Your task to perform on an android device: delete browsing data in the chrome app Image 0: 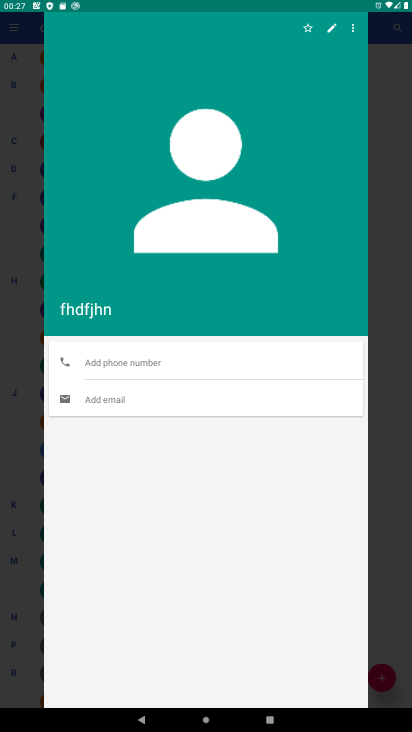
Step 0: press home button
Your task to perform on an android device: delete browsing data in the chrome app Image 1: 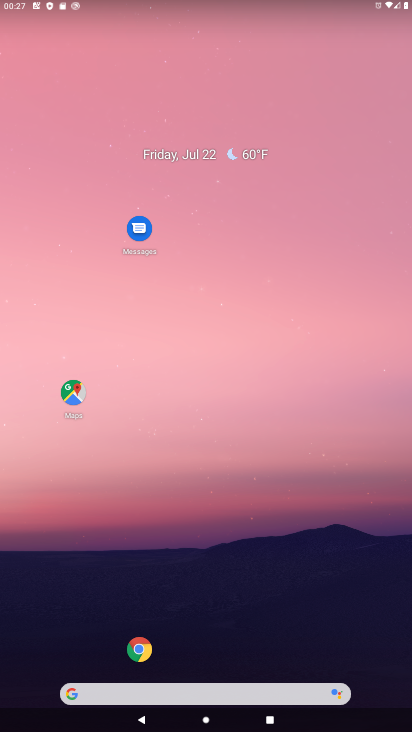
Step 1: click (148, 654)
Your task to perform on an android device: delete browsing data in the chrome app Image 2: 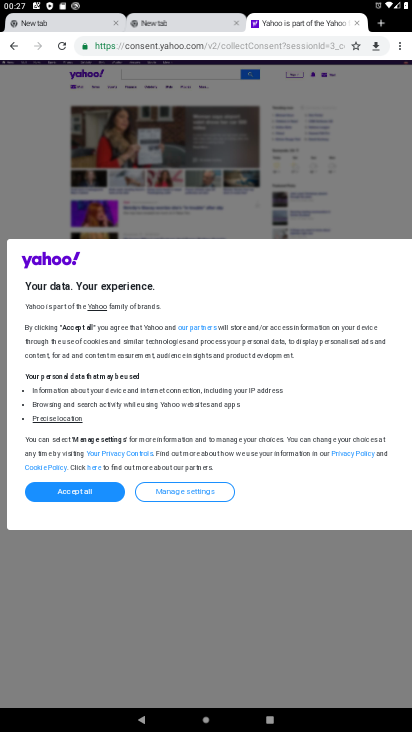
Step 2: click (399, 46)
Your task to perform on an android device: delete browsing data in the chrome app Image 3: 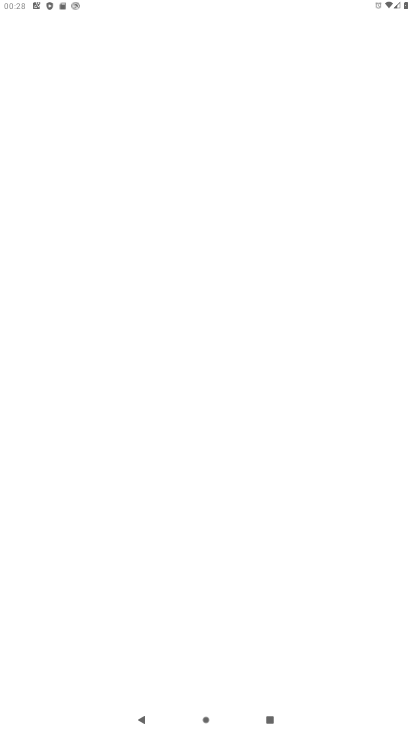
Step 3: click (399, 46)
Your task to perform on an android device: delete browsing data in the chrome app Image 4: 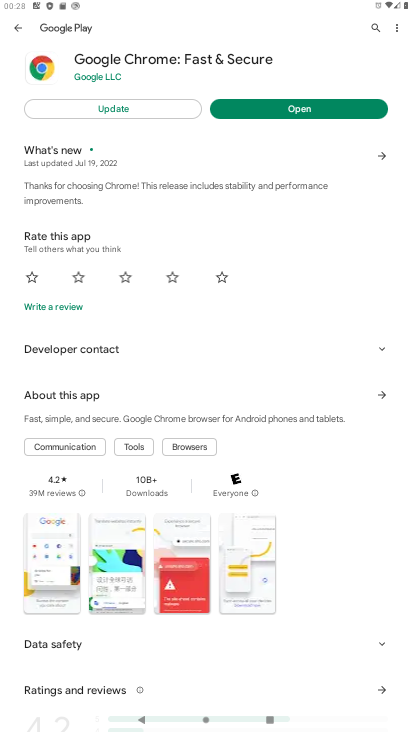
Step 4: click (264, 111)
Your task to perform on an android device: delete browsing data in the chrome app Image 5: 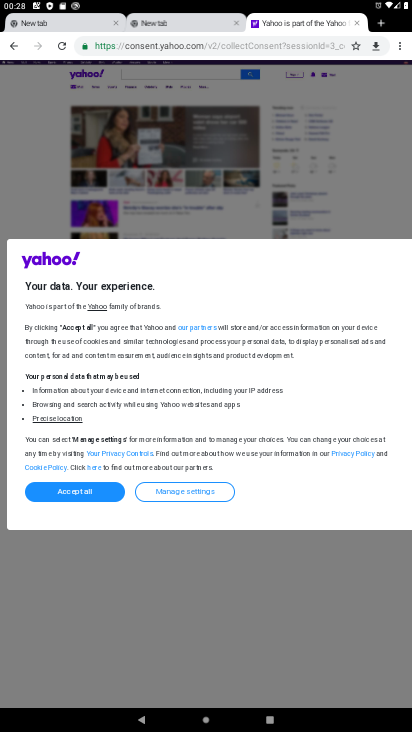
Step 5: click (398, 47)
Your task to perform on an android device: delete browsing data in the chrome app Image 6: 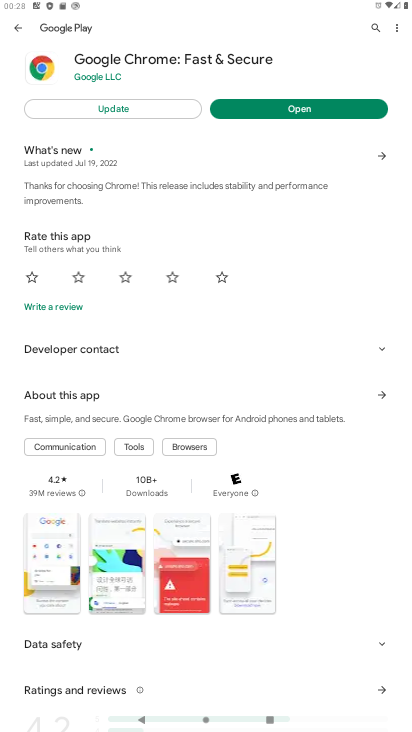
Step 6: click (314, 104)
Your task to perform on an android device: delete browsing data in the chrome app Image 7: 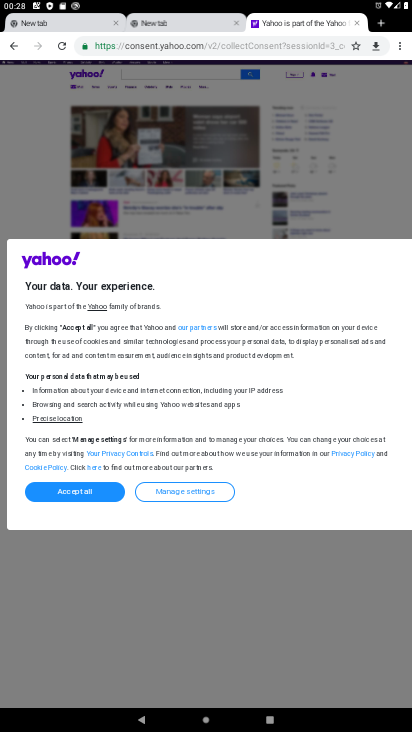
Step 7: click (395, 45)
Your task to perform on an android device: delete browsing data in the chrome app Image 8: 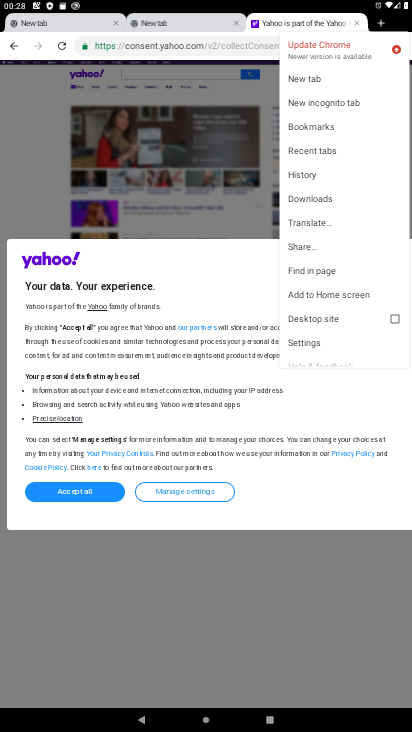
Step 8: click (310, 175)
Your task to perform on an android device: delete browsing data in the chrome app Image 9: 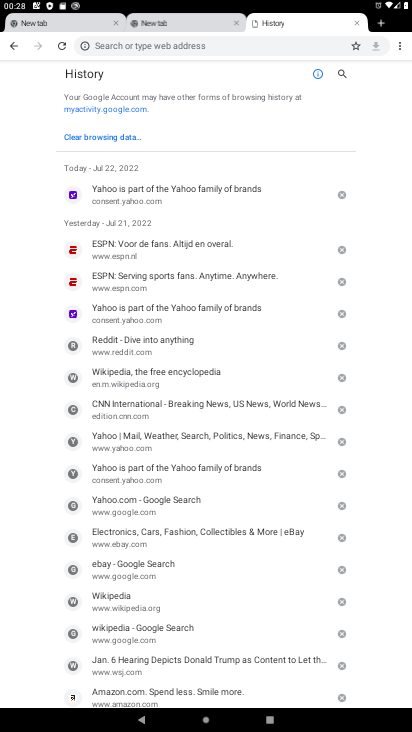
Step 9: click (118, 135)
Your task to perform on an android device: delete browsing data in the chrome app Image 10: 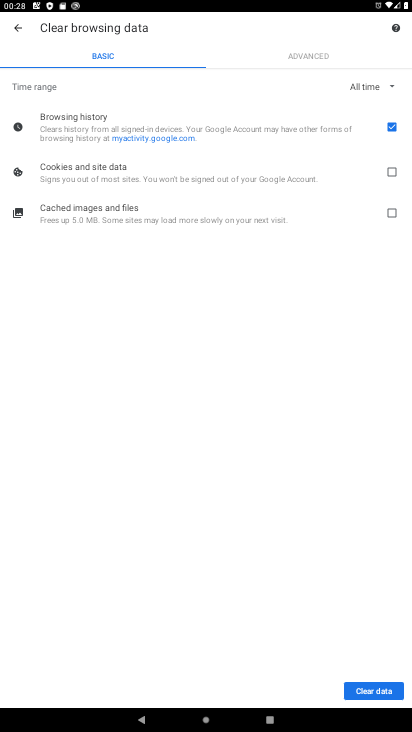
Step 10: click (371, 683)
Your task to perform on an android device: delete browsing data in the chrome app Image 11: 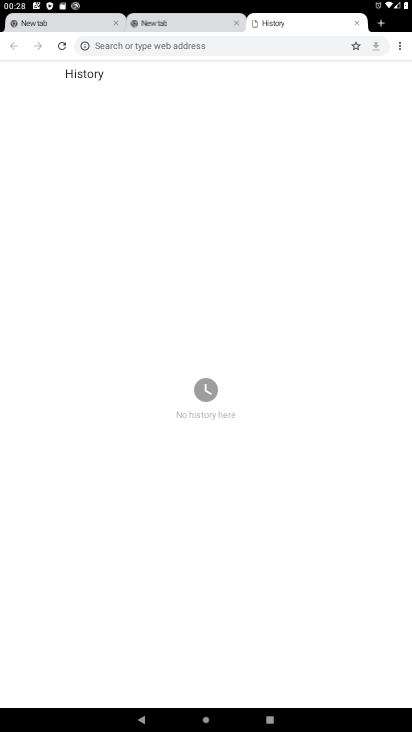
Step 11: task complete